Your task to perform on an android device: turn on translation in the chrome app Image 0: 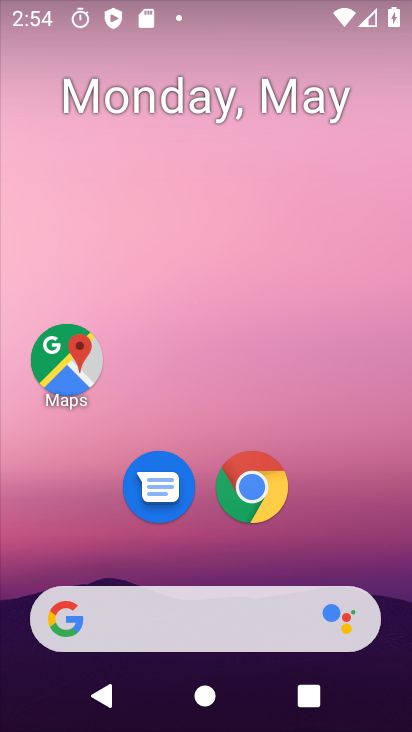
Step 0: drag from (210, 538) to (309, 28)
Your task to perform on an android device: turn on translation in the chrome app Image 1: 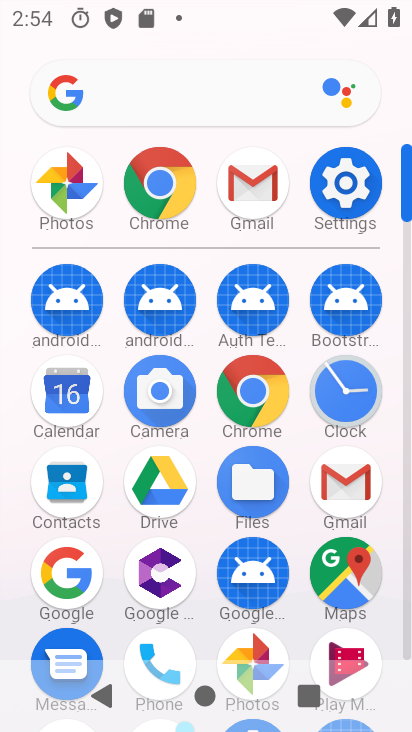
Step 1: click (182, 181)
Your task to perform on an android device: turn on translation in the chrome app Image 2: 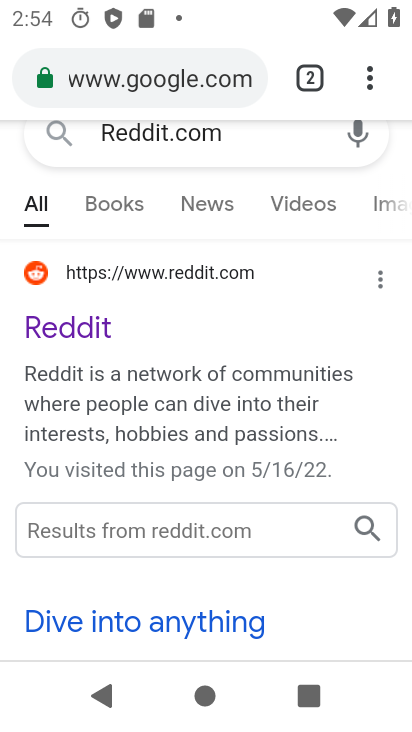
Step 2: click (376, 73)
Your task to perform on an android device: turn on translation in the chrome app Image 3: 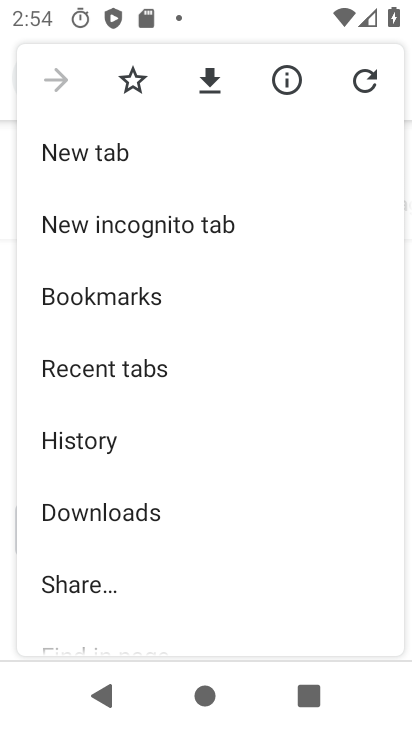
Step 3: drag from (120, 537) to (180, 220)
Your task to perform on an android device: turn on translation in the chrome app Image 4: 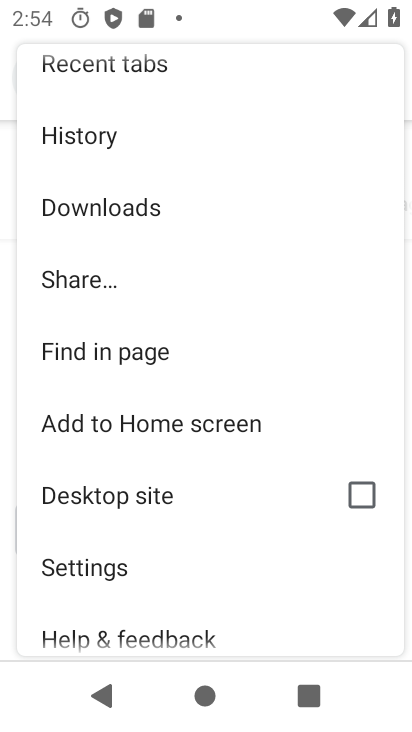
Step 4: click (107, 580)
Your task to perform on an android device: turn on translation in the chrome app Image 5: 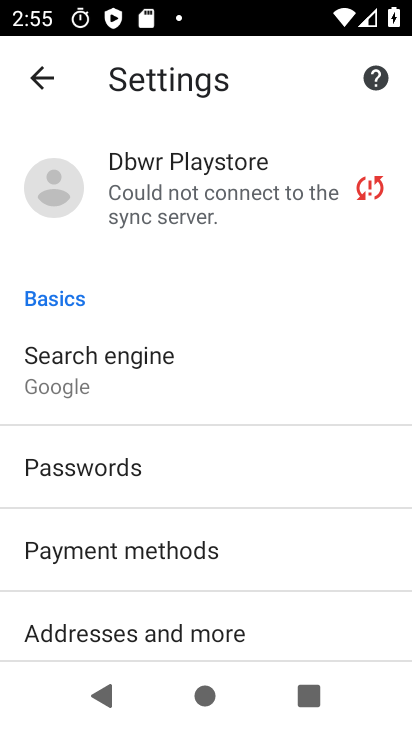
Step 5: drag from (143, 588) to (183, 215)
Your task to perform on an android device: turn on translation in the chrome app Image 6: 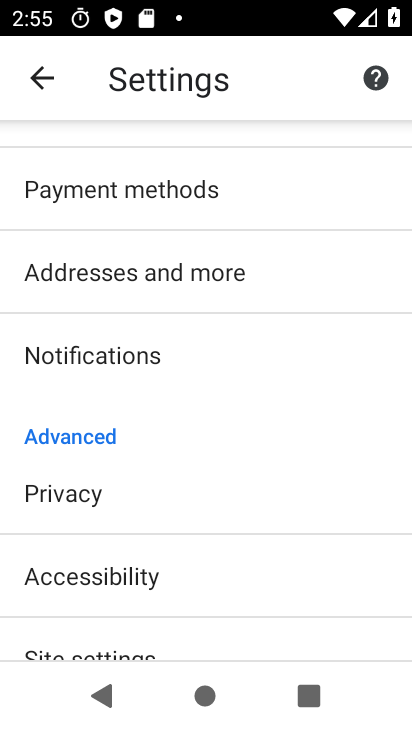
Step 6: drag from (169, 420) to (210, 273)
Your task to perform on an android device: turn on translation in the chrome app Image 7: 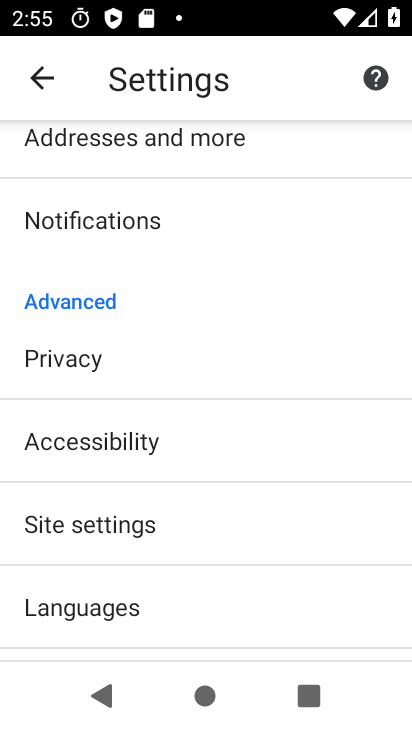
Step 7: drag from (132, 560) to (150, 367)
Your task to perform on an android device: turn on translation in the chrome app Image 8: 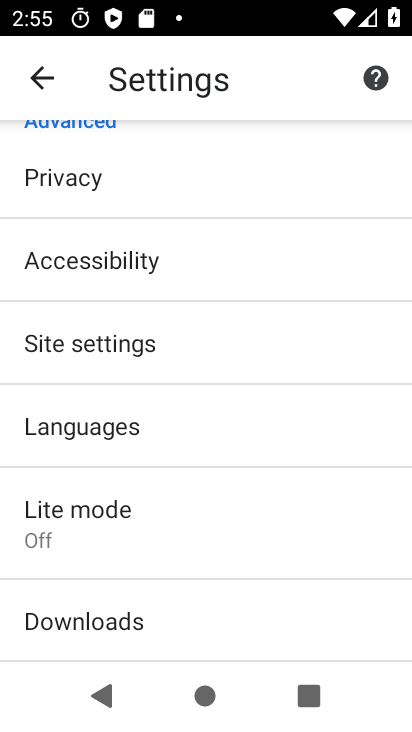
Step 8: click (119, 439)
Your task to perform on an android device: turn on translation in the chrome app Image 9: 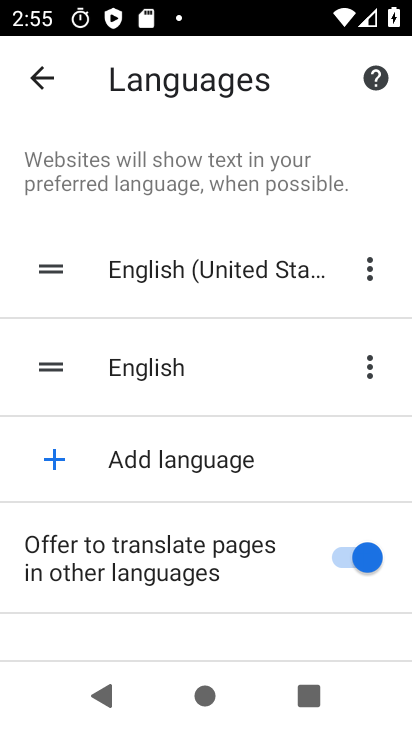
Step 9: task complete